Your task to perform on an android device: set default search engine in the chrome app Image 0: 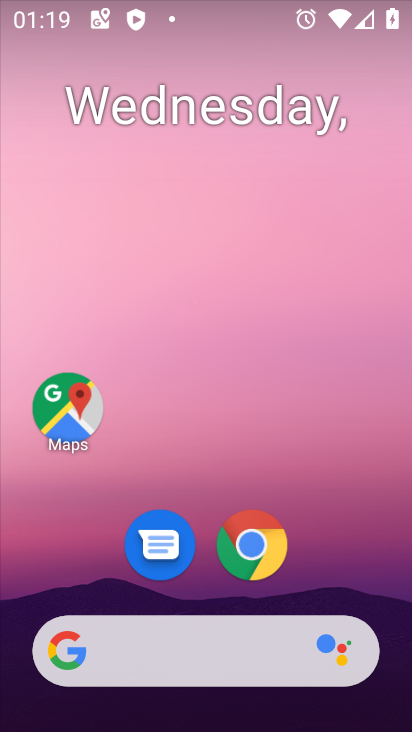
Step 0: click (245, 530)
Your task to perform on an android device: set default search engine in the chrome app Image 1: 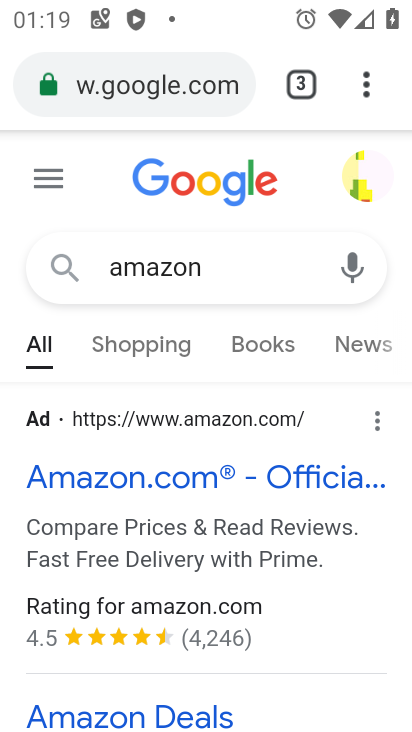
Step 1: drag from (386, 77) to (123, 577)
Your task to perform on an android device: set default search engine in the chrome app Image 2: 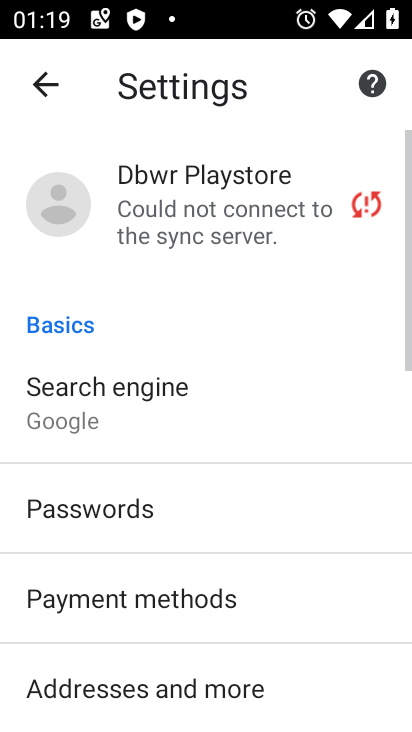
Step 2: click (129, 408)
Your task to perform on an android device: set default search engine in the chrome app Image 3: 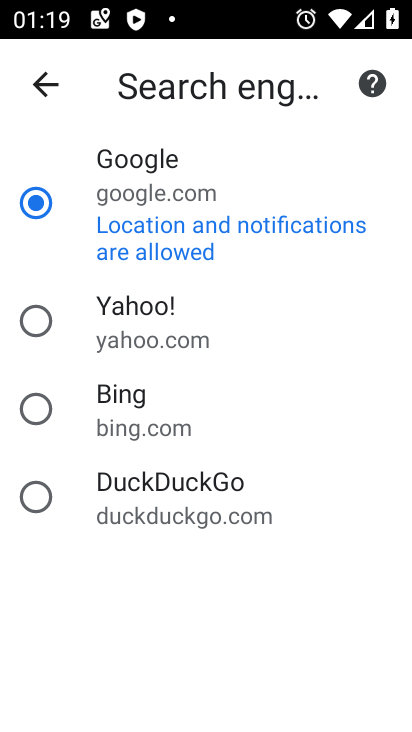
Step 3: task complete